Your task to perform on an android device: Open Google Chrome and click the shortcut for Amazon.com Image 0: 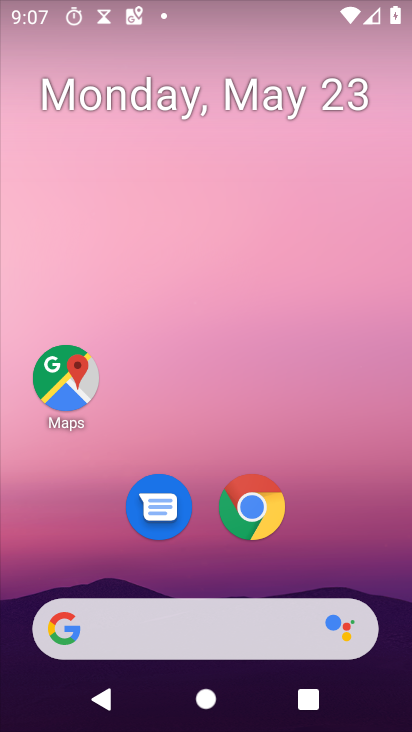
Step 0: click (267, 499)
Your task to perform on an android device: Open Google Chrome and click the shortcut for Amazon.com Image 1: 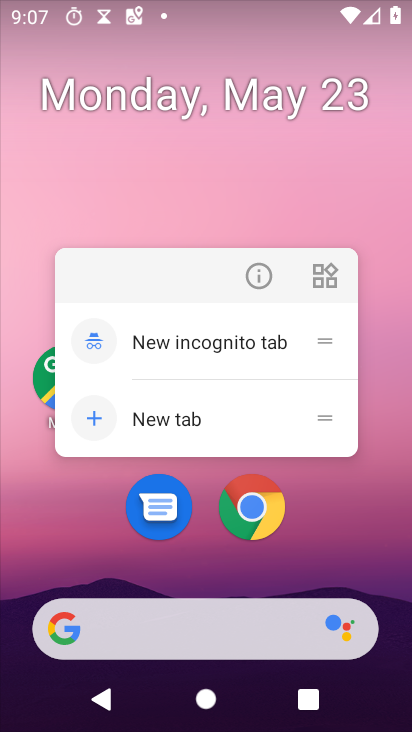
Step 1: click (267, 498)
Your task to perform on an android device: Open Google Chrome and click the shortcut for Amazon.com Image 2: 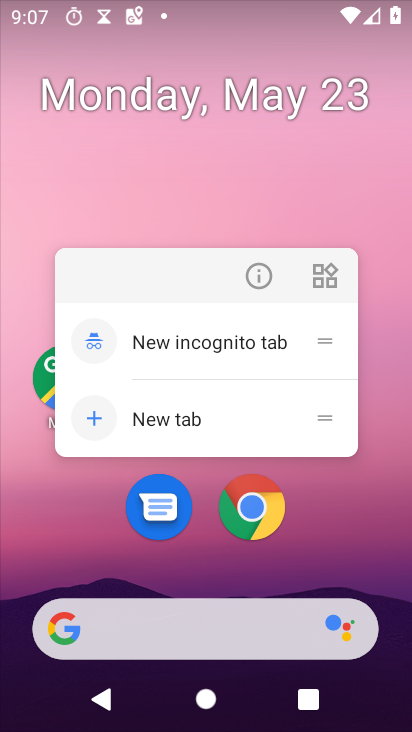
Step 2: click (267, 498)
Your task to perform on an android device: Open Google Chrome and click the shortcut for Amazon.com Image 3: 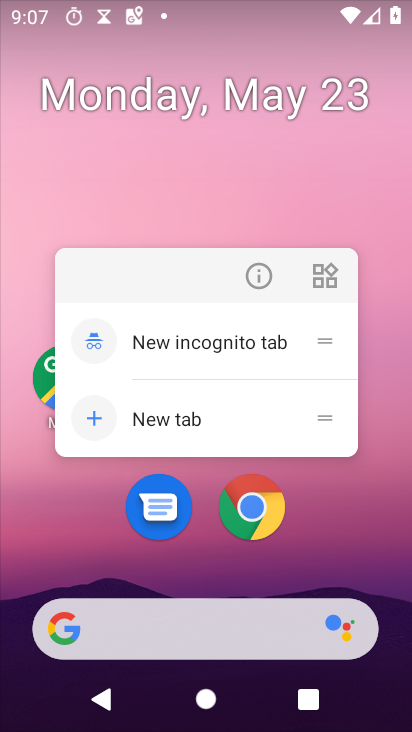
Step 3: click (267, 498)
Your task to perform on an android device: Open Google Chrome and click the shortcut for Amazon.com Image 4: 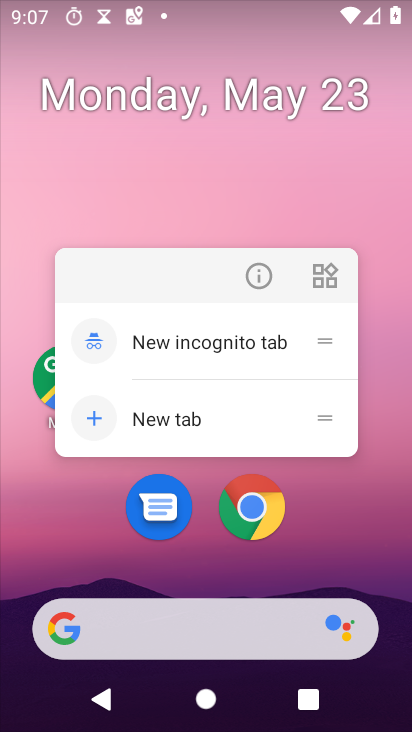
Step 4: click (350, 552)
Your task to perform on an android device: Open Google Chrome and click the shortcut for Amazon.com Image 5: 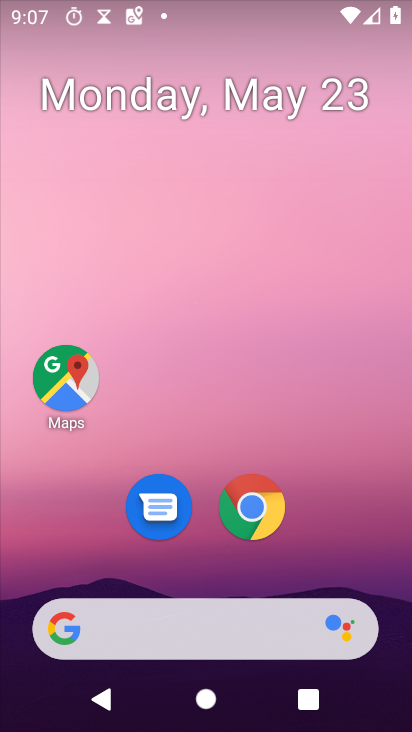
Step 5: drag from (350, 552) to (348, 0)
Your task to perform on an android device: Open Google Chrome and click the shortcut for Amazon.com Image 6: 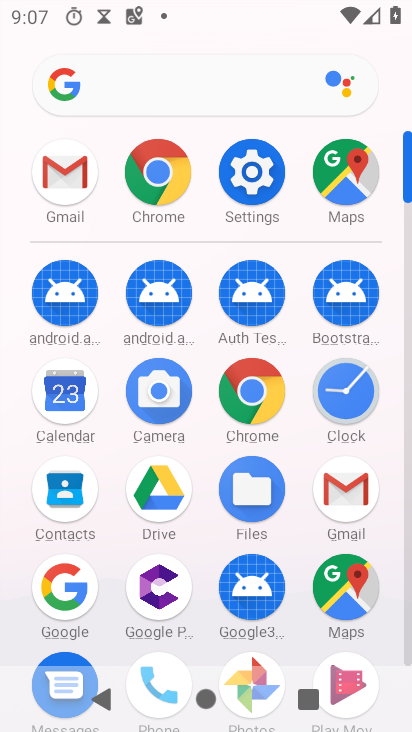
Step 6: click (171, 191)
Your task to perform on an android device: Open Google Chrome and click the shortcut for Amazon.com Image 7: 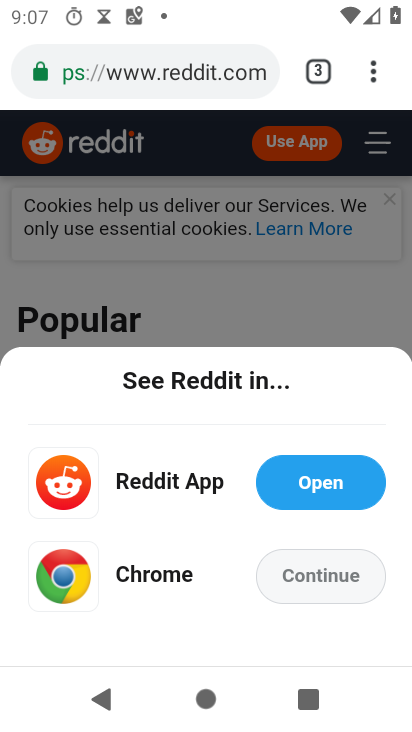
Step 7: click (186, 74)
Your task to perform on an android device: Open Google Chrome and click the shortcut for Amazon.com Image 8: 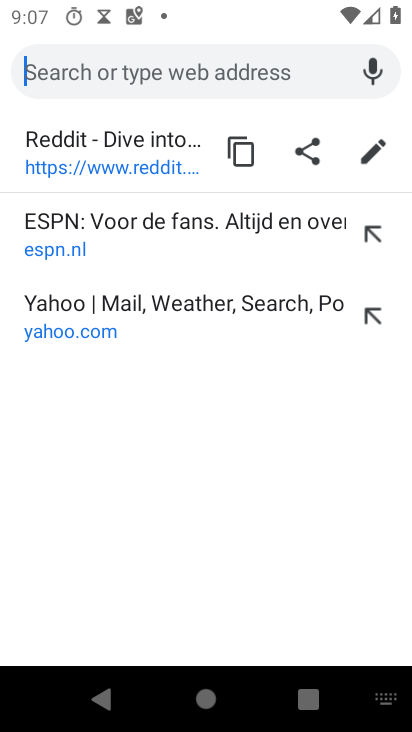
Step 8: type "amazon"
Your task to perform on an android device: Open Google Chrome and click the shortcut for Amazon.com Image 9: 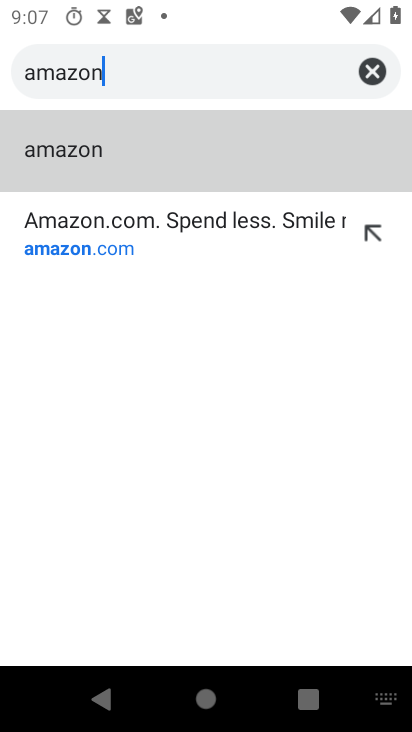
Step 9: click (83, 228)
Your task to perform on an android device: Open Google Chrome and click the shortcut for Amazon.com Image 10: 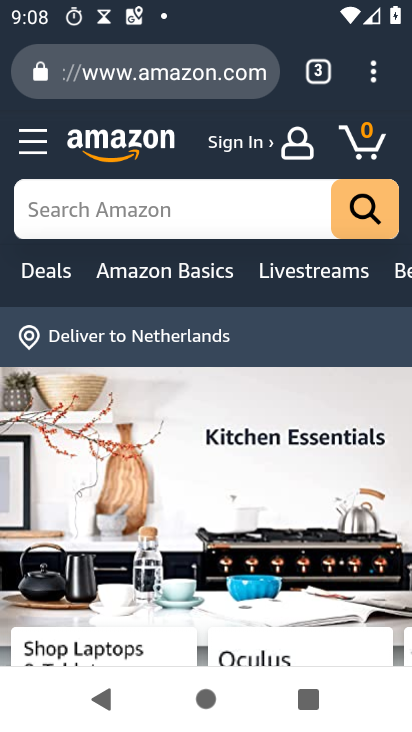
Step 10: task complete